Your task to perform on an android device: check data usage Image 0: 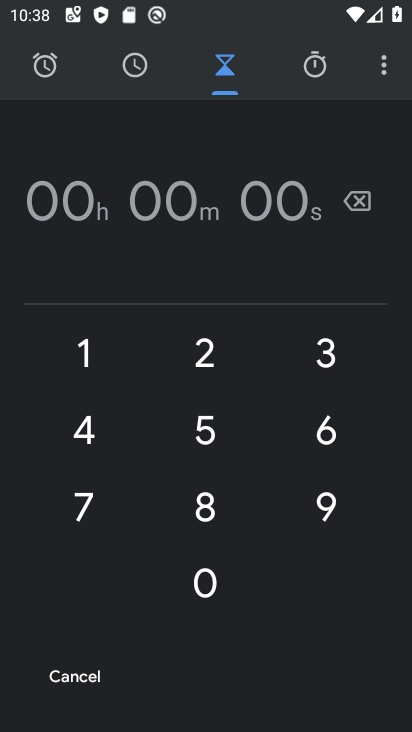
Step 0: click (258, 594)
Your task to perform on an android device: check data usage Image 1: 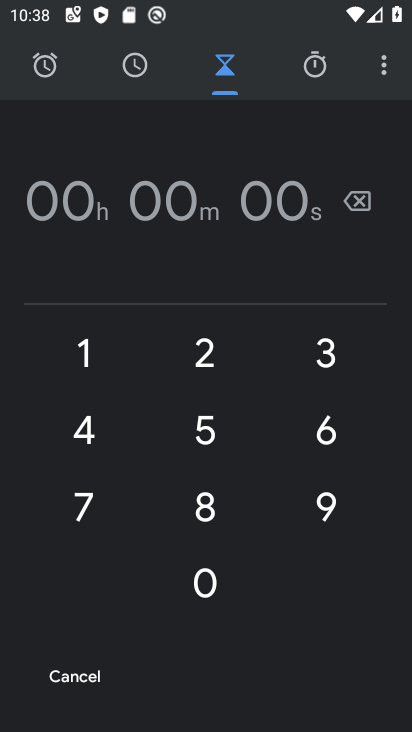
Step 1: press home button
Your task to perform on an android device: check data usage Image 2: 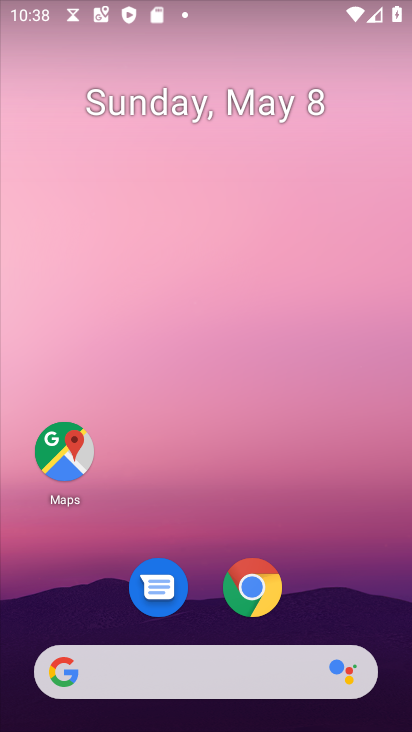
Step 2: drag from (332, 574) to (103, 180)
Your task to perform on an android device: check data usage Image 3: 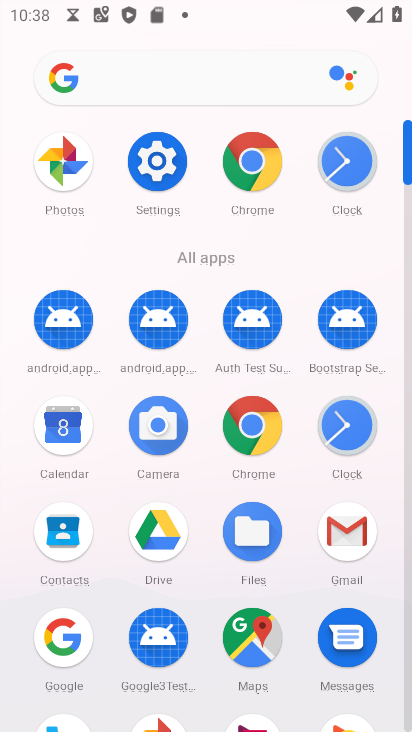
Step 3: click (157, 174)
Your task to perform on an android device: check data usage Image 4: 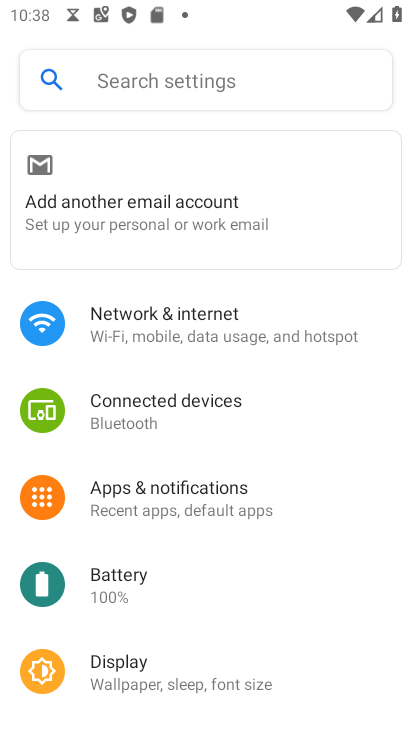
Step 4: click (231, 330)
Your task to perform on an android device: check data usage Image 5: 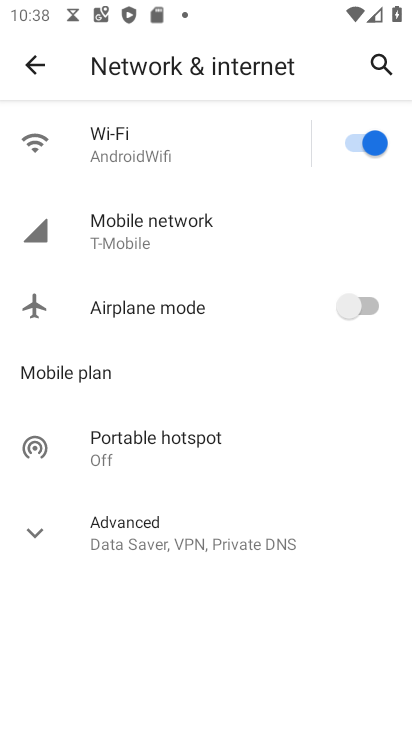
Step 5: click (143, 237)
Your task to perform on an android device: check data usage Image 6: 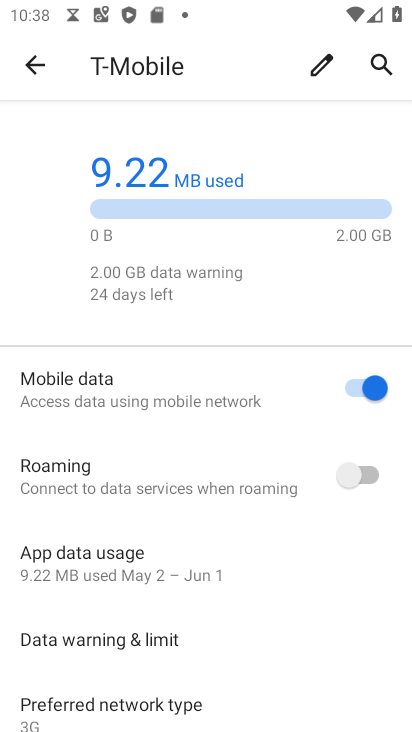
Step 6: click (93, 562)
Your task to perform on an android device: check data usage Image 7: 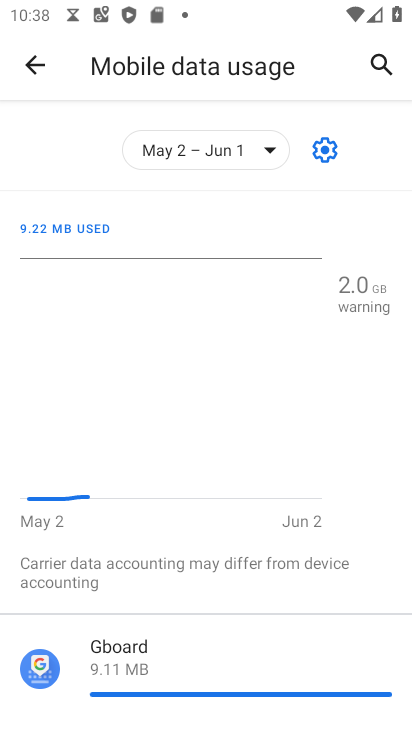
Step 7: task complete